Your task to perform on an android device: Open Reddit.com Image 0: 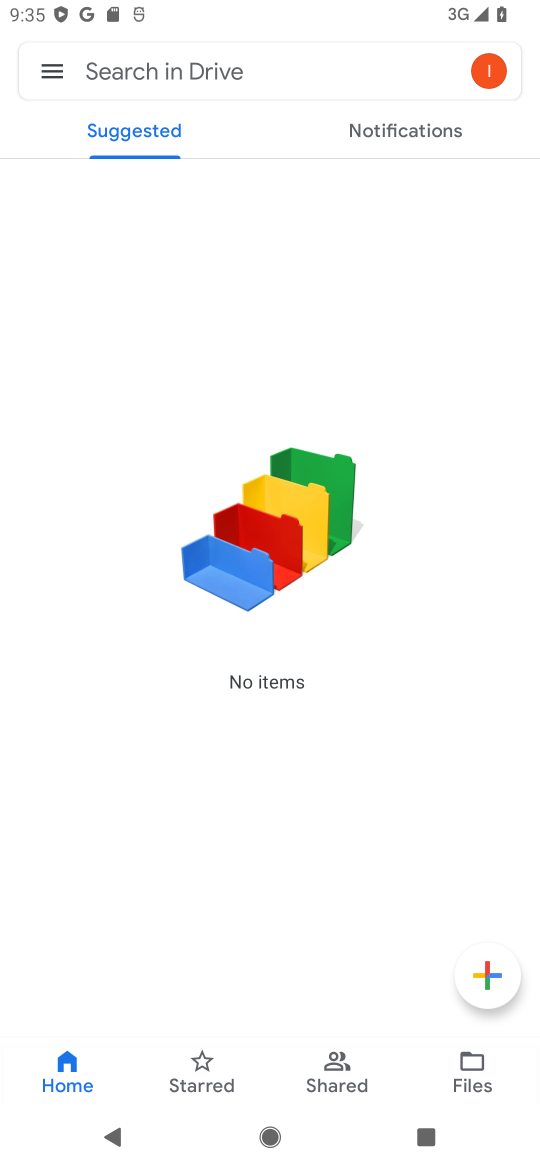
Step 0: press home button
Your task to perform on an android device: Open Reddit.com Image 1: 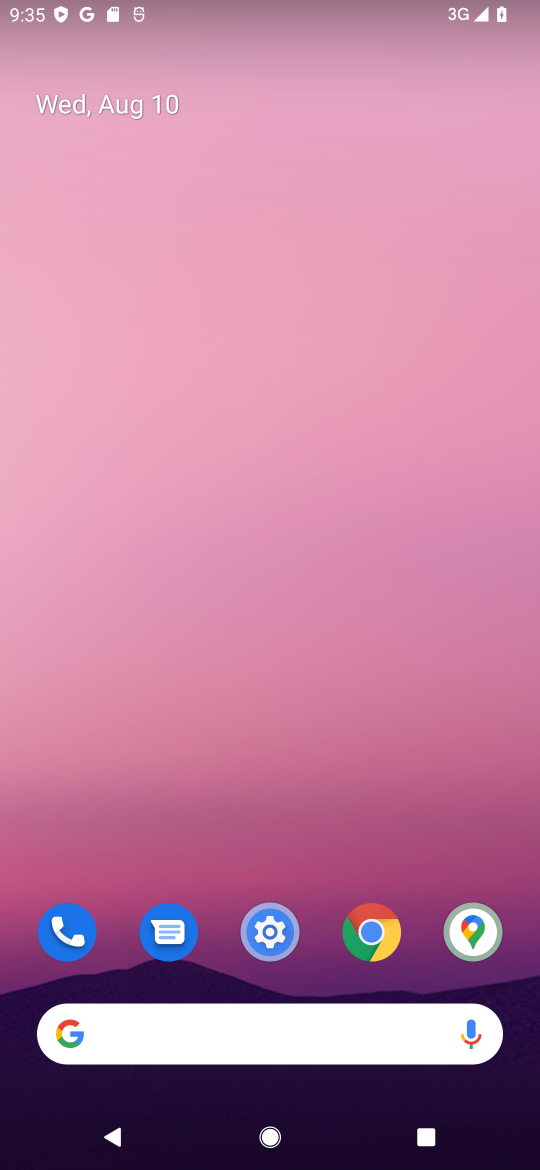
Step 1: click (371, 931)
Your task to perform on an android device: Open Reddit.com Image 2: 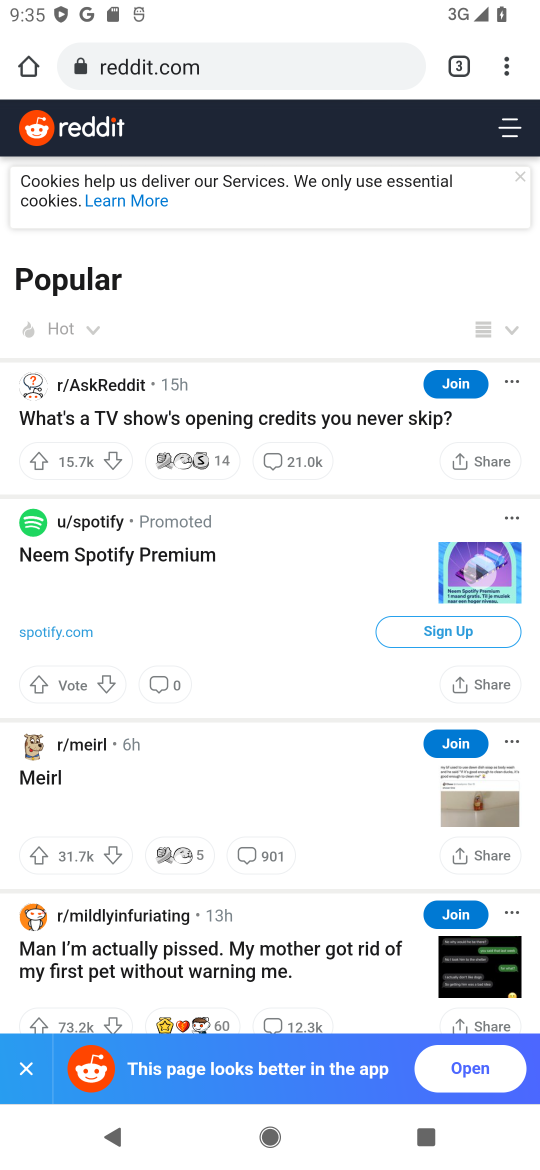
Step 2: task complete